Your task to perform on an android device: change the clock display to analog Image 0: 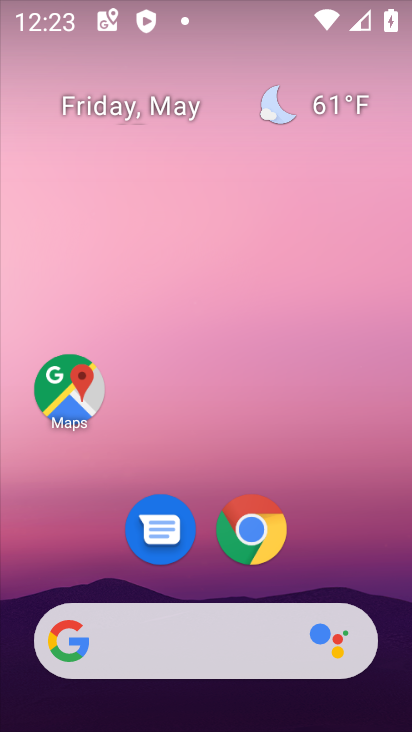
Step 0: drag from (357, 564) to (291, 78)
Your task to perform on an android device: change the clock display to analog Image 1: 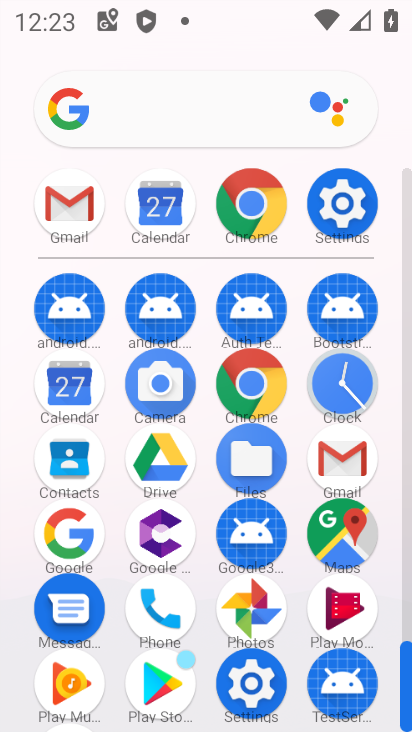
Step 1: click (346, 384)
Your task to perform on an android device: change the clock display to analog Image 2: 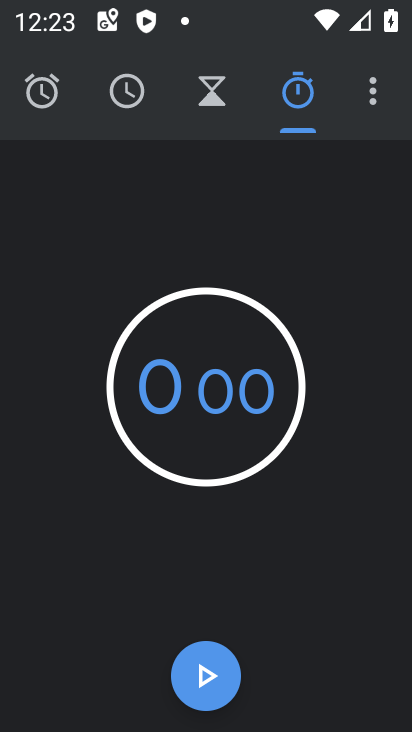
Step 2: click (382, 100)
Your task to perform on an android device: change the clock display to analog Image 3: 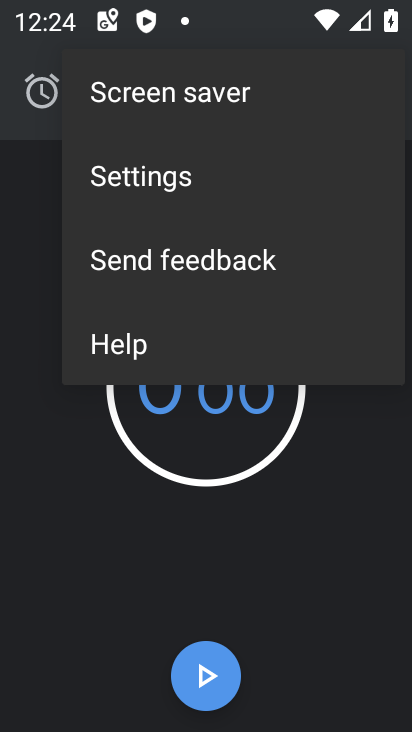
Step 3: click (155, 185)
Your task to perform on an android device: change the clock display to analog Image 4: 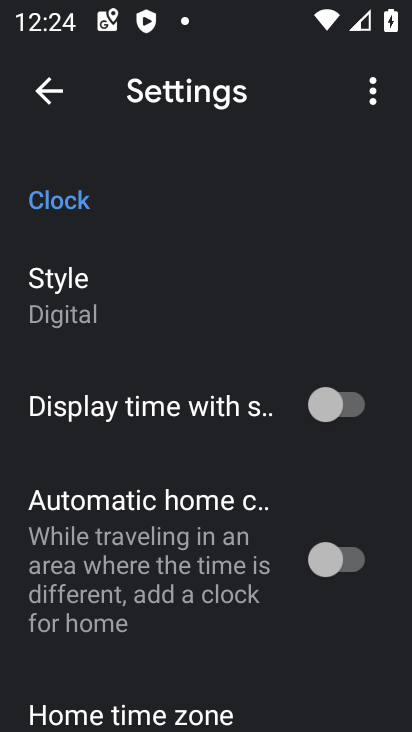
Step 4: click (147, 321)
Your task to perform on an android device: change the clock display to analog Image 5: 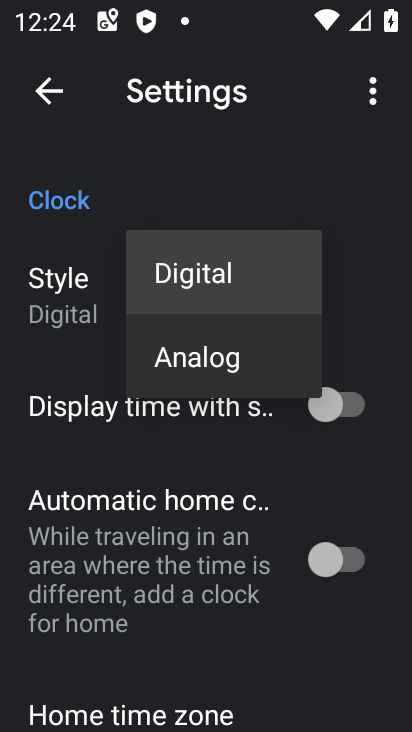
Step 5: click (187, 369)
Your task to perform on an android device: change the clock display to analog Image 6: 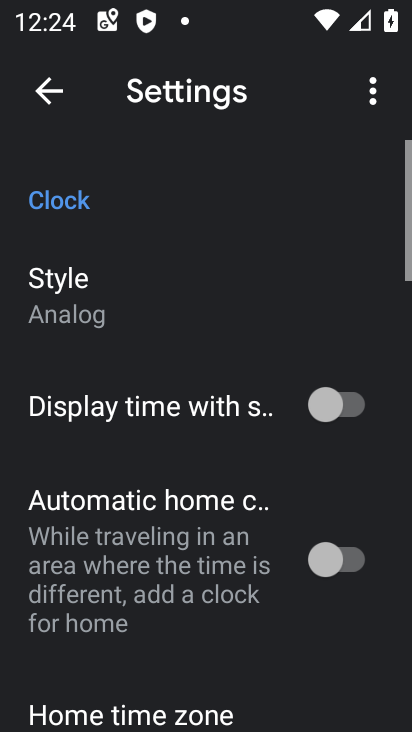
Step 6: task complete